Your task to perform on an android device: toggle show notifications on the lock screen Image 0: 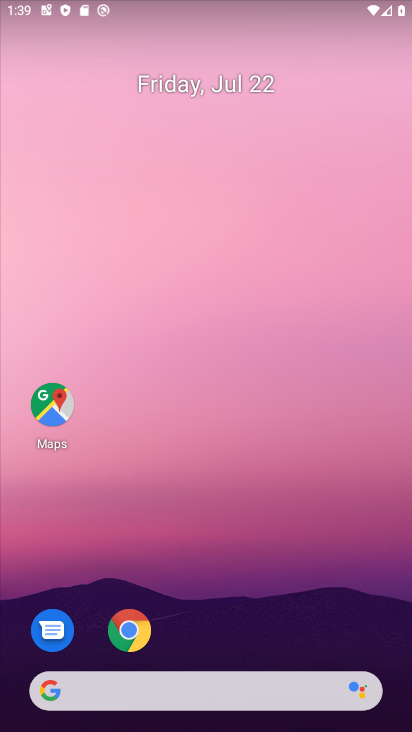
Step 0: click (129, 630)
Your task to perform on an android device: toggle show notifications on the lock screen Image 1: 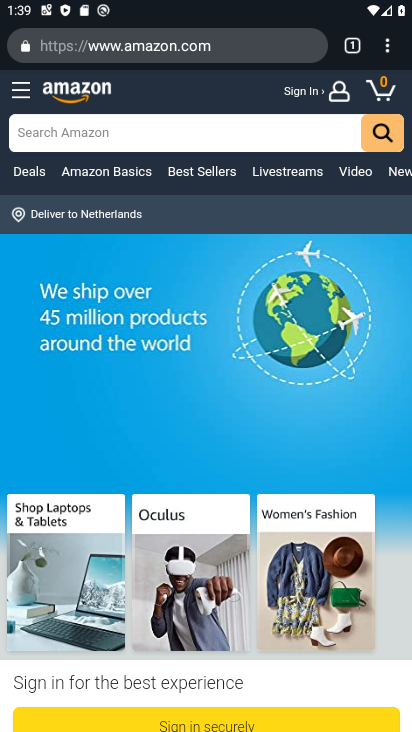
Step 1: click (384, 55)
Your task to perform on an android device: toggle show notifications on the lock screen Image 2: 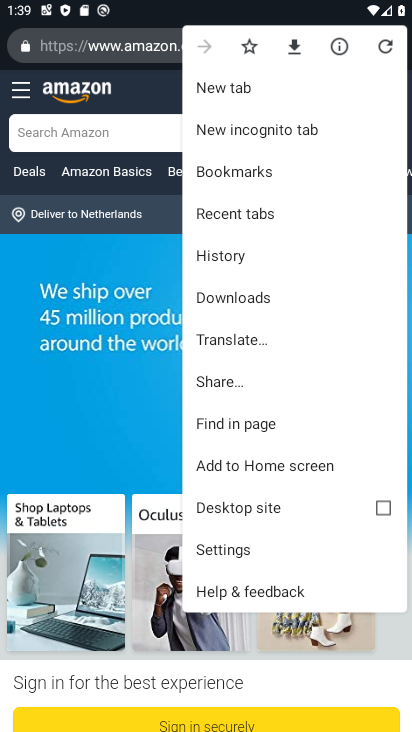
Step 2: click (219, 550)
Your task to perform on an android device: toggle show notifications on the lock screen Image 3: 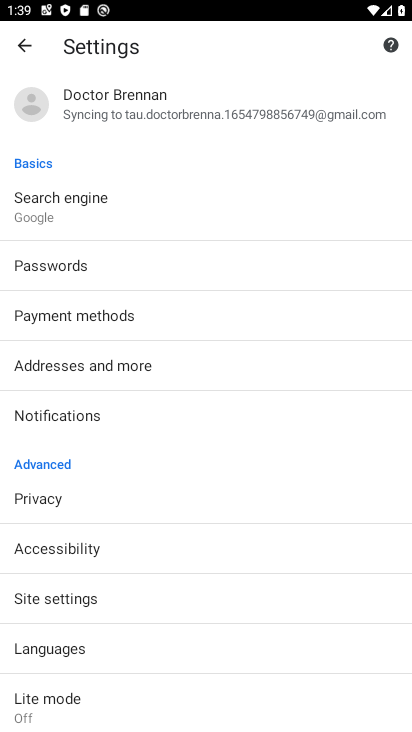
Step 3: click (78, 419)
Your task to perform on an android device: toggle show notifications on the lock screen Image 4: 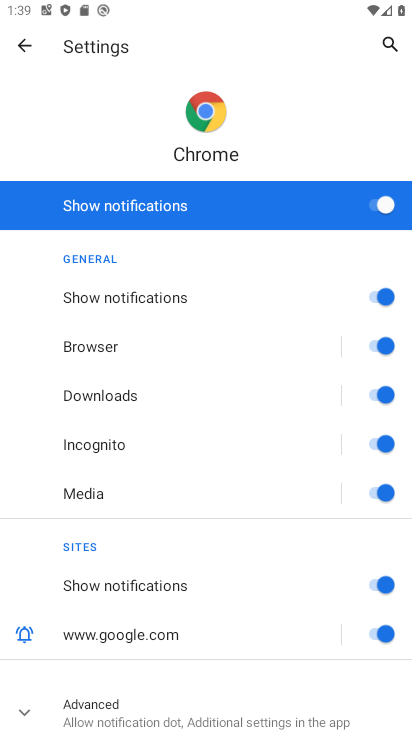
Step 4: click (372, 199)
Your task to perform on an android device: toggle show notifications on the lock screen Image 5: 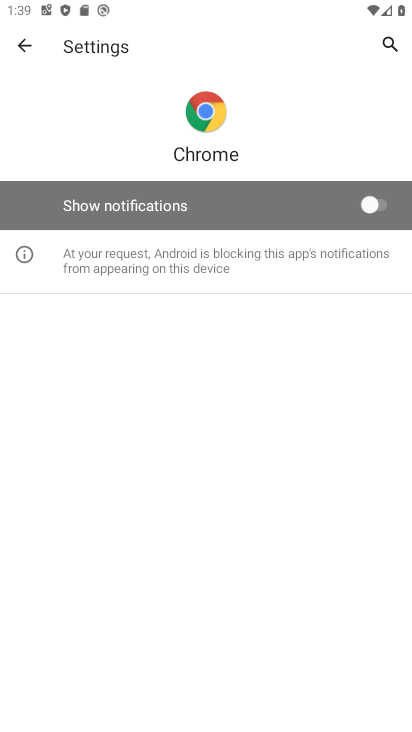
Step 5: task complete